Your task to perform on an android device: Open the Play Movies app and select the watchlist tab. Image 0: 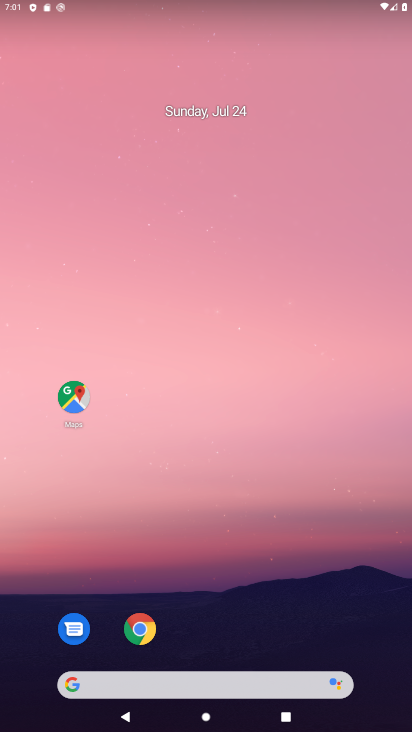
Step 0: drag from (347, 622) to (186, 0)
Your task to perform on an android device: Open the Play Movies app and select the watchlist tab. Image 1: 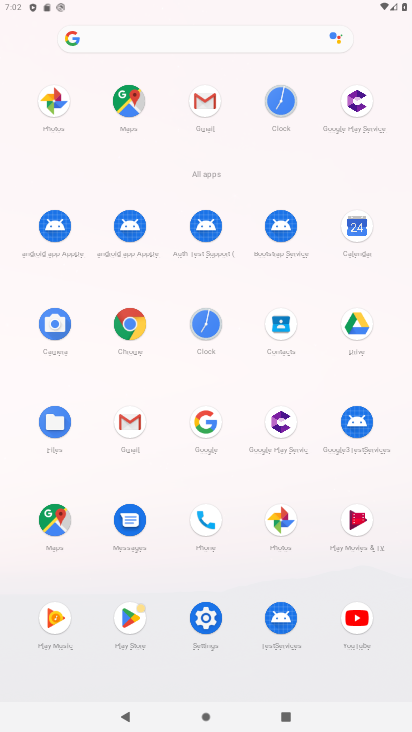
Step 1: click (345, 520)
Your task to perform on an android device: Open the Play Movies app and select the watchlist tab. Image 2: 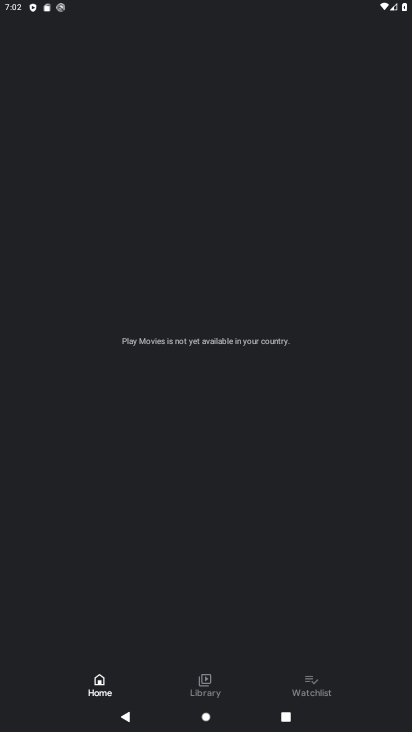
Step 2: click (307, 682)
Your task to perform on an android device: Open the Play Movies app and select the watchlist tab. Image 3: 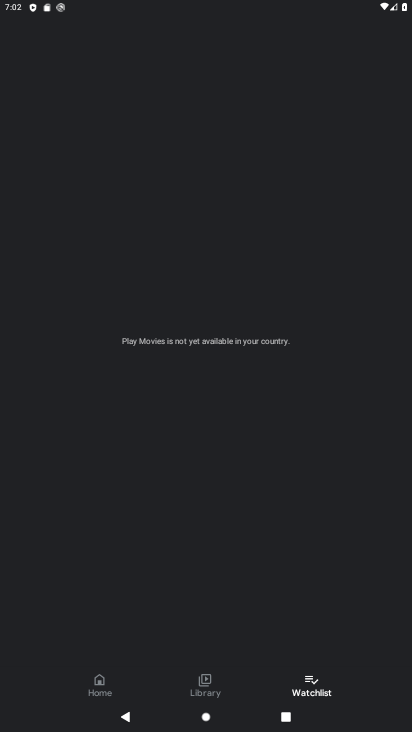
Step 3: task complete